Your task to perform on an android device: Is it going to rain tomorrow? Image 0: 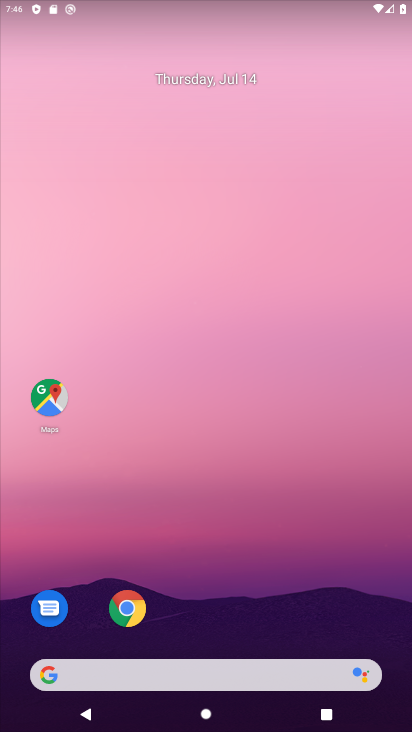
Step 0: drag from (229, 588) to (178, 120)
Your task to perform on an android device: Is it going to rain tomorrow? Image 1: 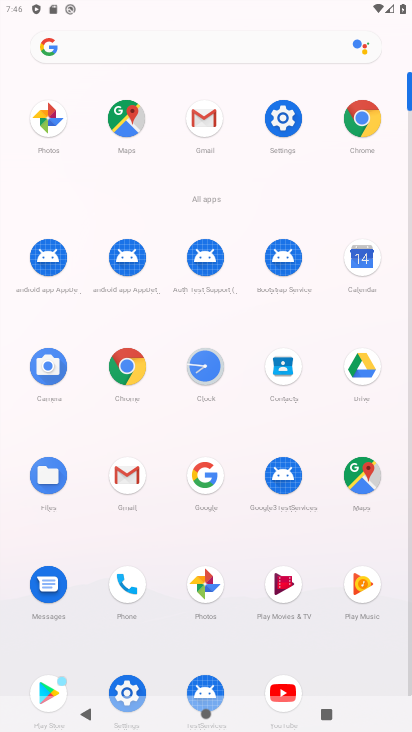
Step 1: click (205, 471)
Your task to perform on an android device: Is it going to rain tomorrow? Image 2: 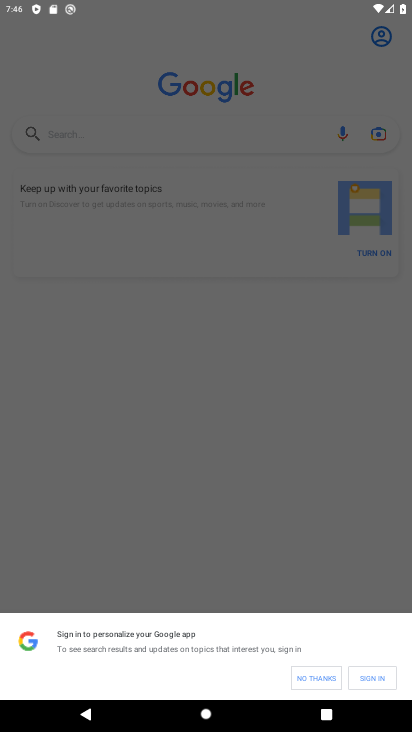
Step 2: click (160, 132)
Your task to perform on an android device: Is it going to rain tomorrow? Image 3: 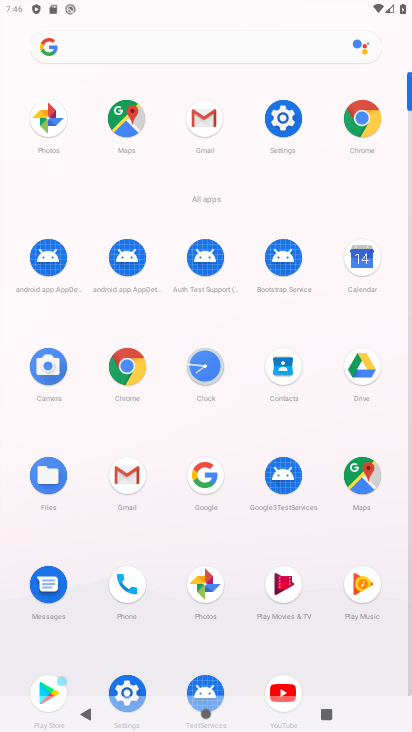
Step 3: click (205, 471)
Your task to perform on an android device: Is it going to rain tomorrow? Image 4: 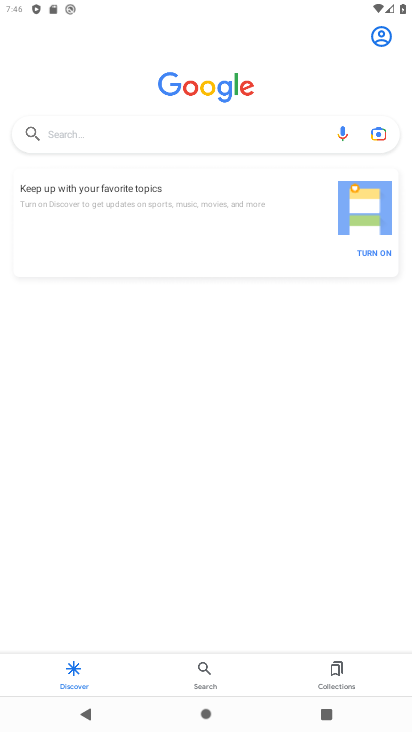
Step 4: click (70, 121)
Your task to perform on an android device: Is it going to rain tomorrow? Image 5: 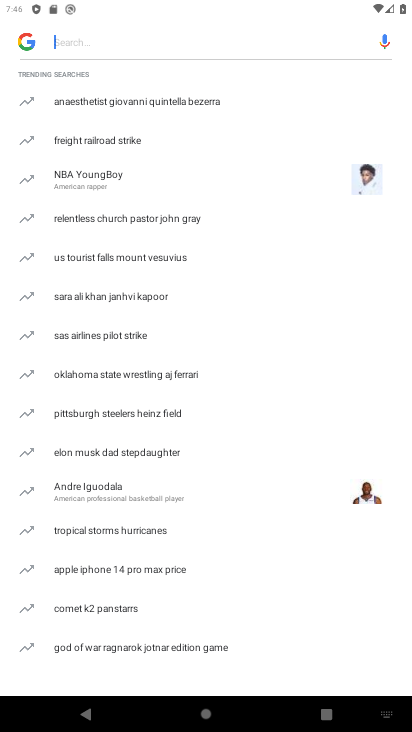
Step 5: type "Is it going to rain tomorrow?"
Your task to perform on an android device: Is it going to rain tomorrow? Image 6: 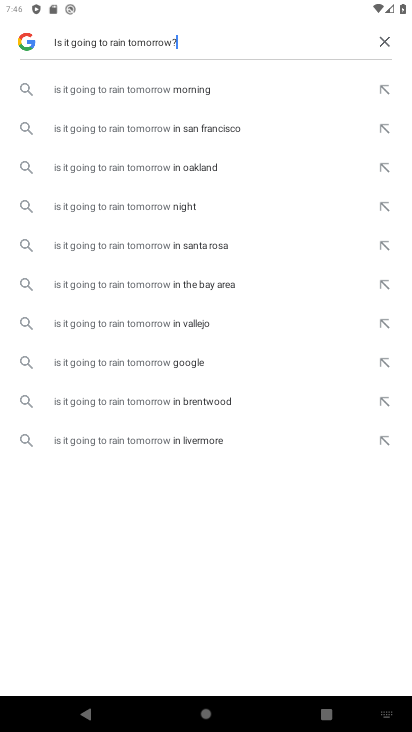
Step 6: click (153, 89)
Your task to perform on an android device: Is it going to rain tomorrow? Image 7: 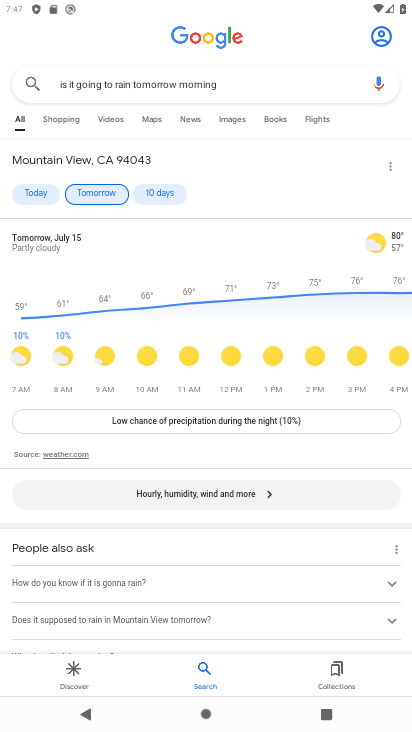
Step 7: task complete